Your task to perform on an android device: make emails show in primary in the gmail app Image 0: 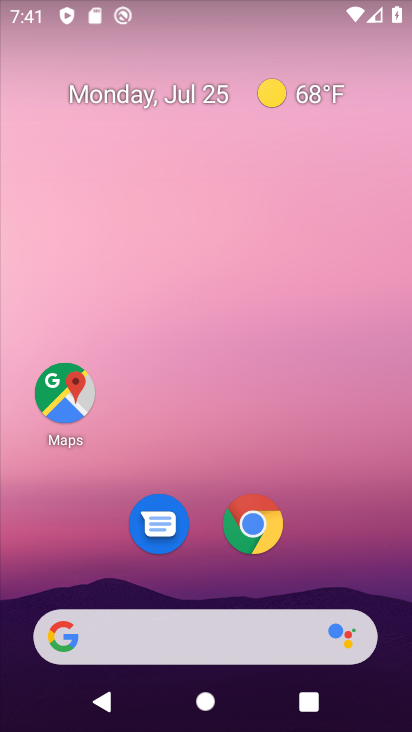
Step 0: drag from (310, 529) to (282, 84)
Your task to perform on an android device: make emails show in primary in the gmail app Image 1: 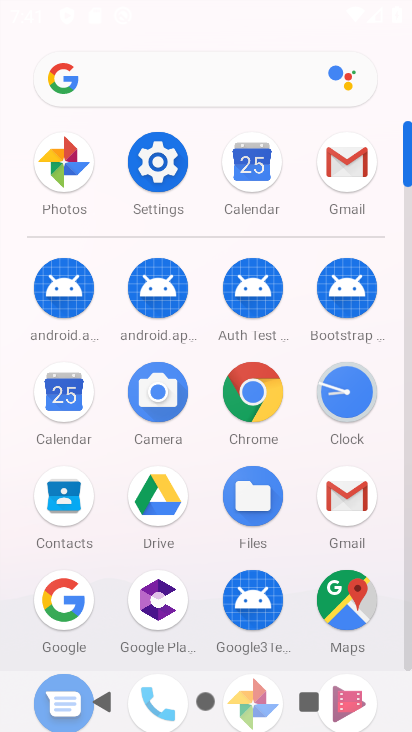
Step 1: click (344, 174)
Your task to perform on an android device: make emails show in primary in the gmail app Image 2: 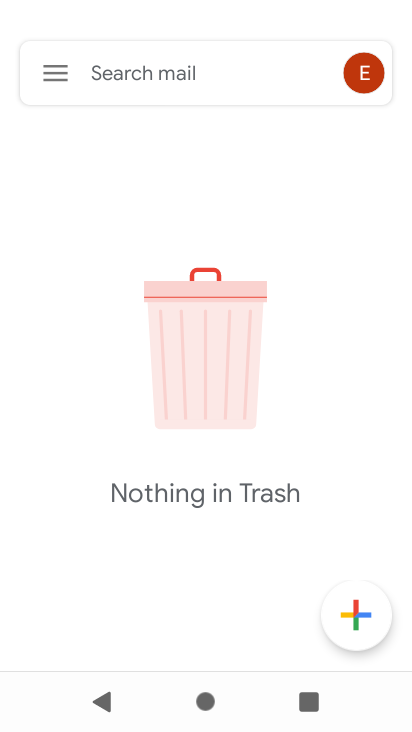
Step 2: click (52, 60)
Your task to perform on an android device: make emails show in primary in the gmail app Image 3: 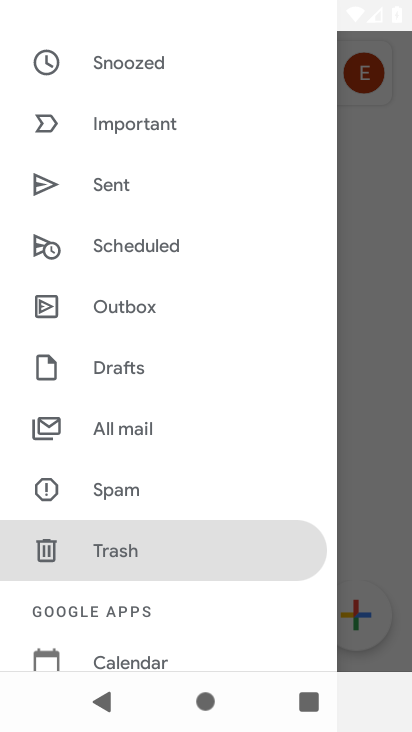
Step 3: drag from (168, 182) to (183, 551)
Your task to perform on an android device: make emails show in primary in the gmail app Image 4: 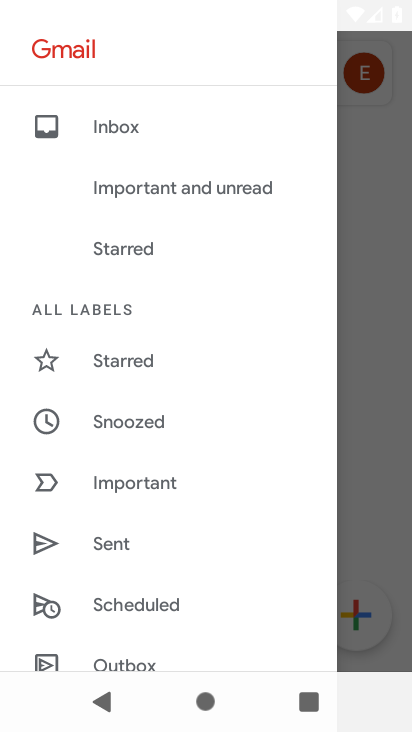
Step 4: drag from (161, 532) to (233, 1)
Your task to perform on an android device: make emails show in primary in the gmail app Image 5: 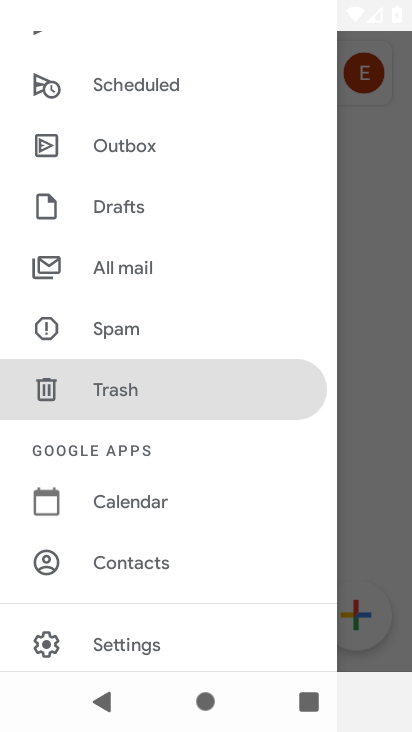
Step 5: click (135, 645)
Your task to perform on an android device: make emails show in primary in the gmail app Image 6: 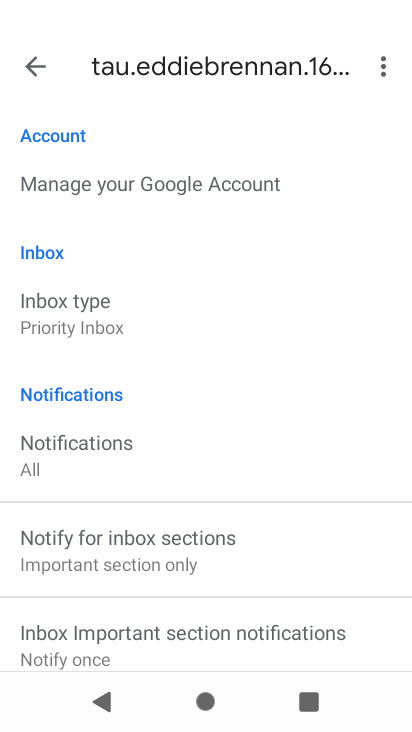
Step 6: click (87, 307)
Your task to perform on an android device: make emails show in primary in the gmail app Image 7: 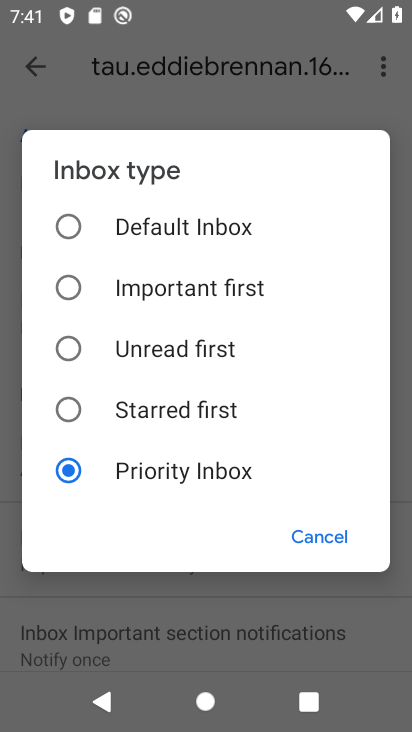
Step 7: click (68, 225)
Your task to perform on an android device: make emails show in primary in the gmail app Image 8: 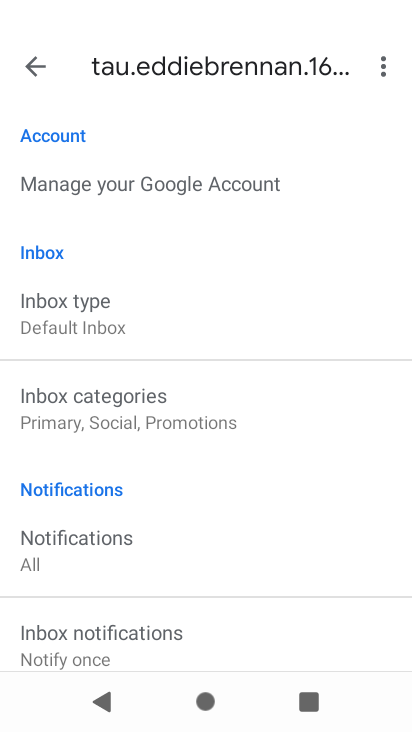
Step 8: click (91, 411)
Your task to perform on an android device: make emails show in primary in the gmail app Image 9: 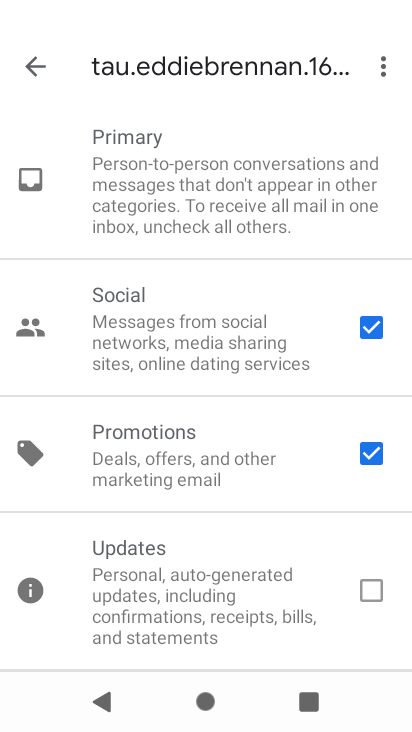
Step 9: click (376, 442)
Your task to perform on an android device: make emails show in primary in the gmail app Image 10: 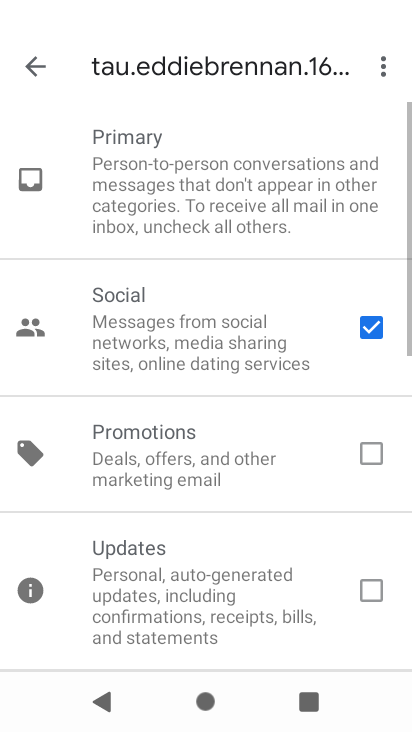
Step 10: click (372, 329)
Your task to perform on an android device: make emails show in primary in the gmail app Image 11: 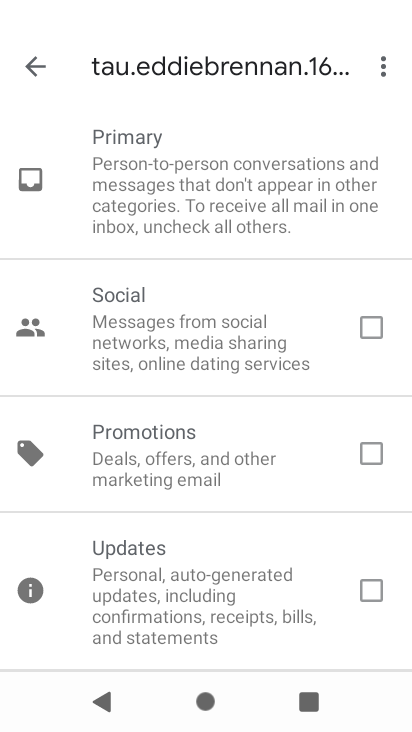
Step 11: task complete